Your task to perform on an android device: open a bookmark in the chrome app Image 0: 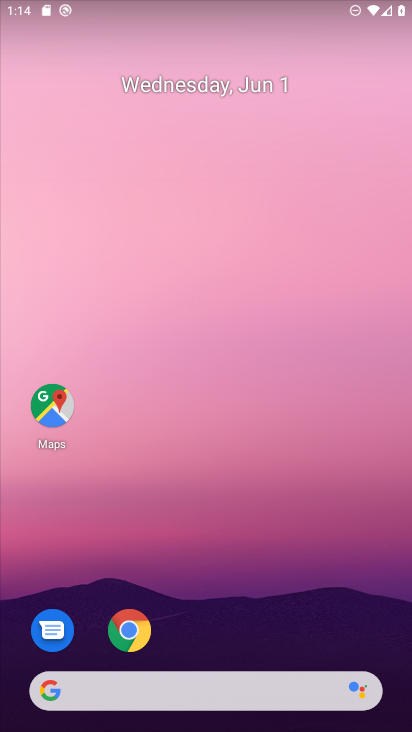
Step 0: press home button
Your task to perform on an android device: open a bookmark in the chrome app Image 1: 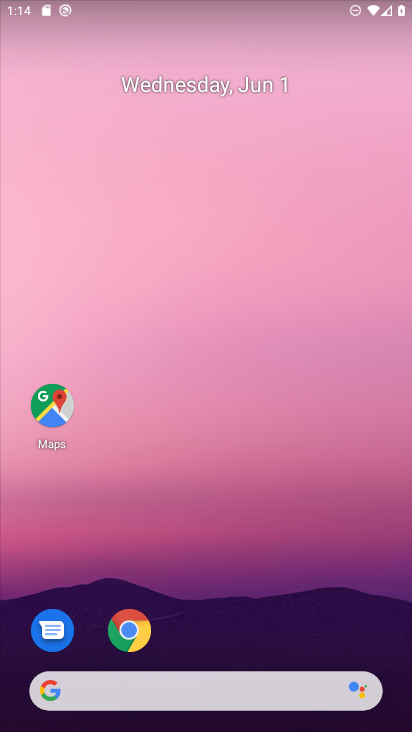
Step 1: click (131, 635)
Your task to perform on an android device: open a bookmark in the chrome app Image 2: 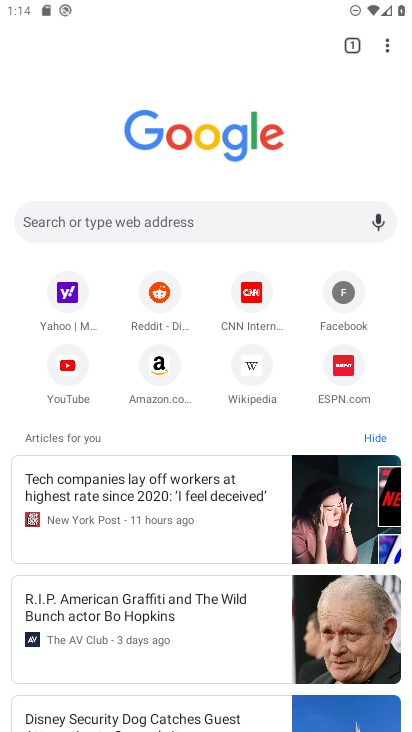
Step 2: task complete